Your task to perform on an android device: Add usb-c to usb-a to the cart on target.com, then select checkout. Image 0: 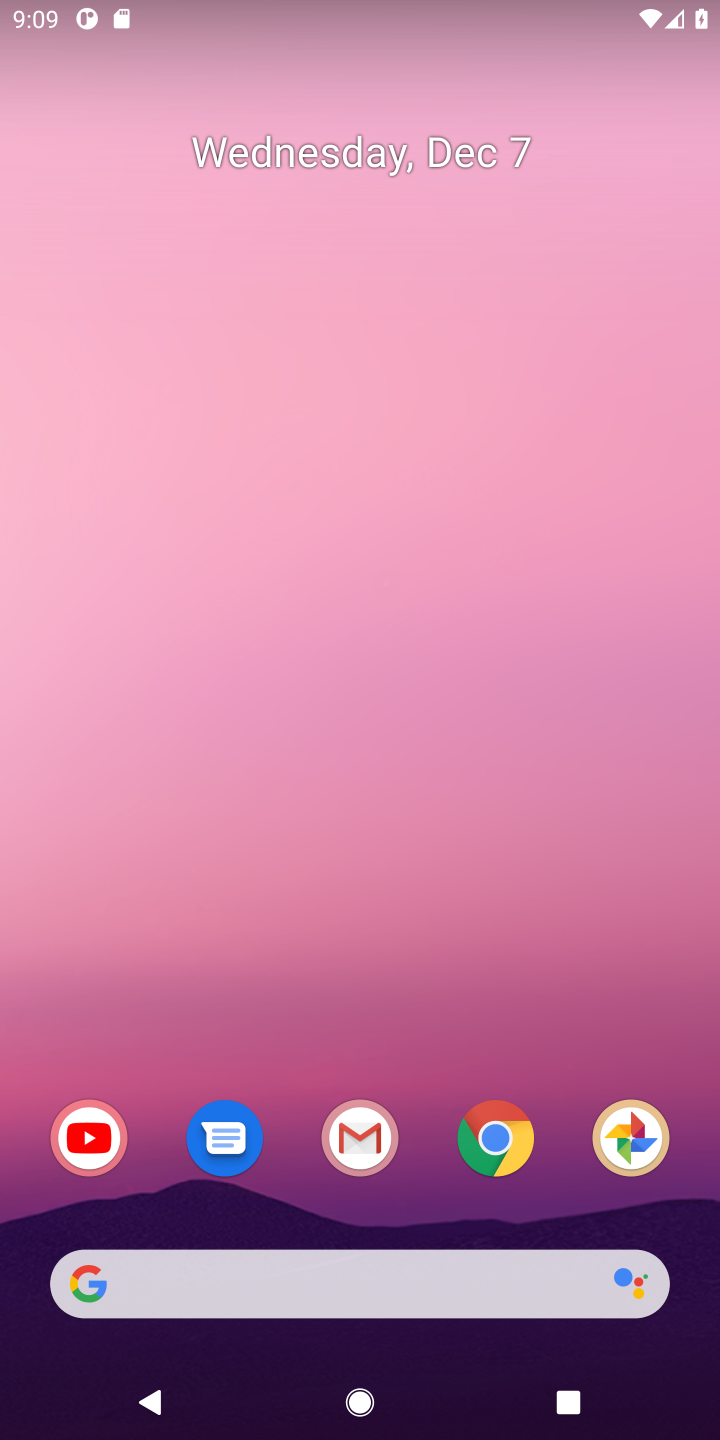
Step 0: press home button
Your task to perform on an android device: Add usb-c to usb-a to the cart on target.com, then select checkout. Image 1: 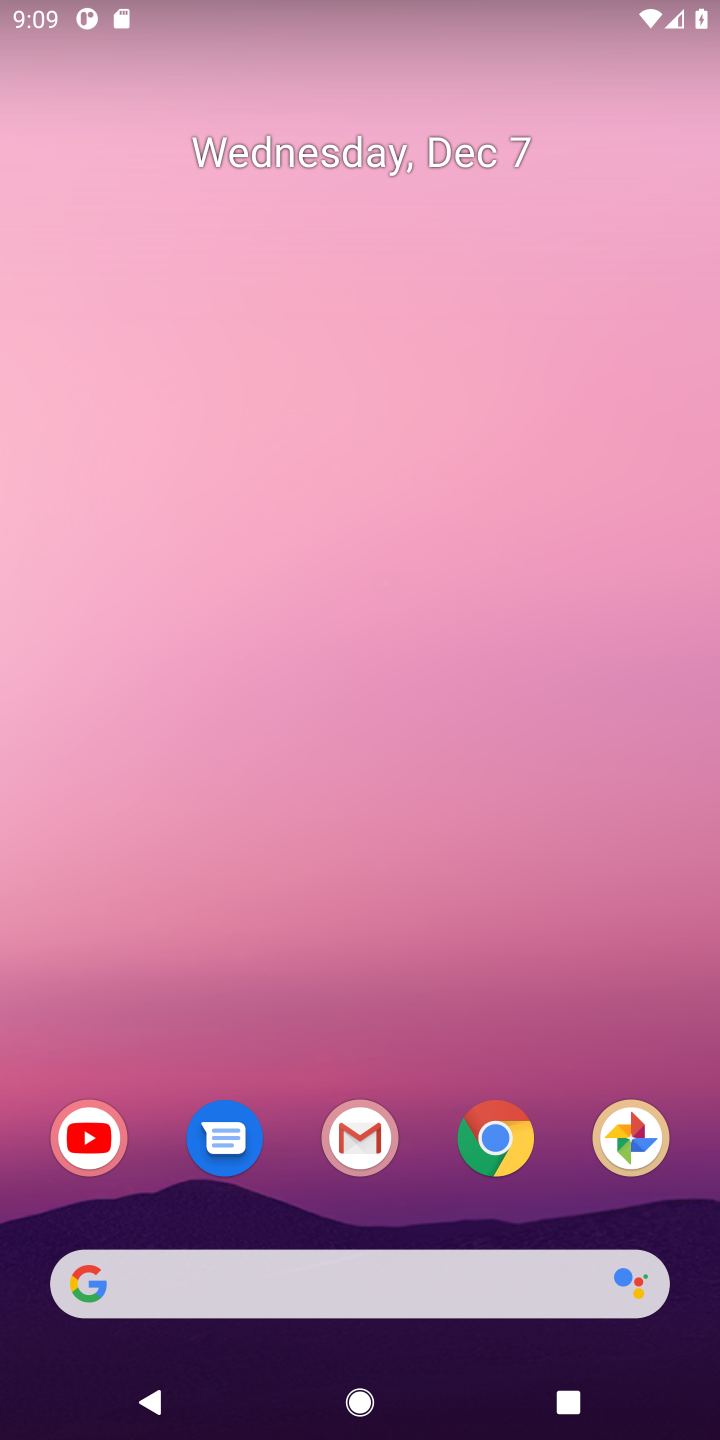
Step 1: click (128, 1288)
Your task to perform on an android device: Add usb-c to usb-a to the cart on target.com, then select checkout. Image 2: 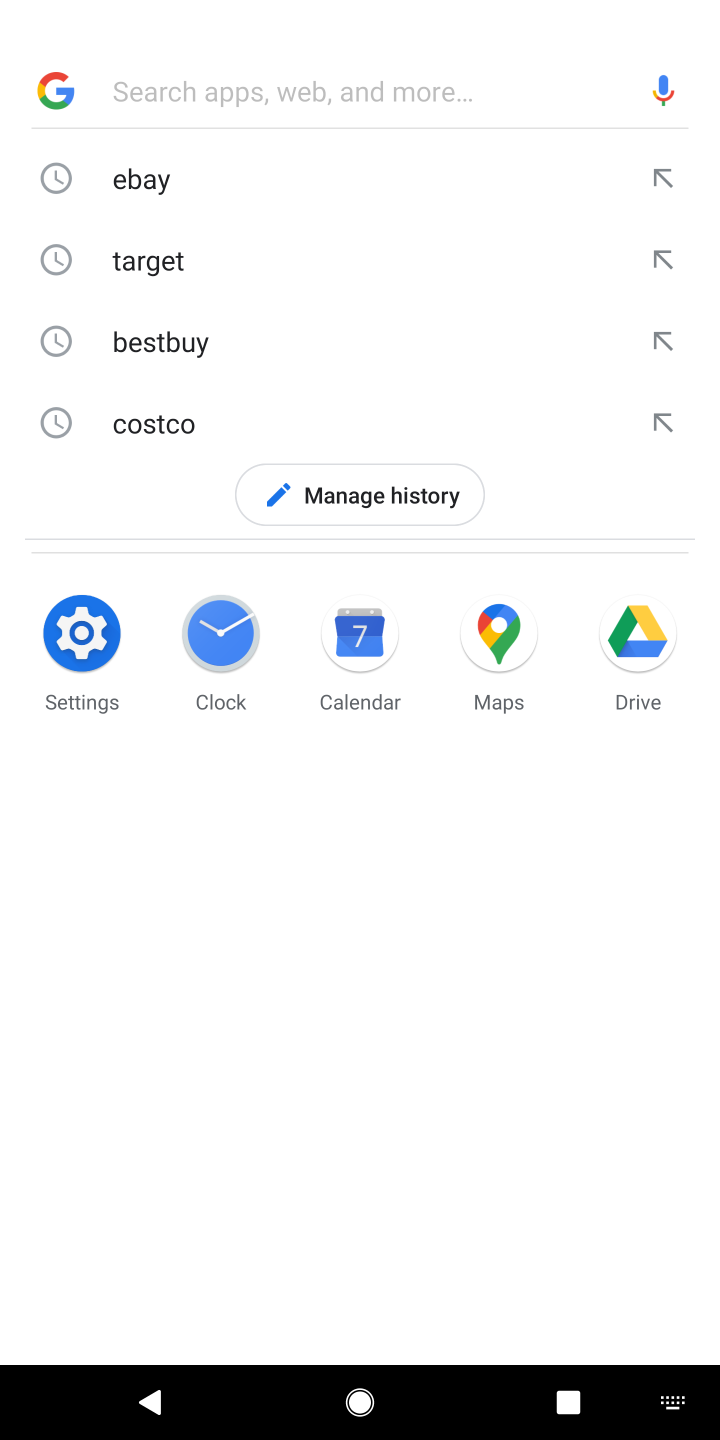
Step 2: type "target.com"
Your task to perform on an android device: Add usb-c to usb-a to the cart on target.com, then select checkout. Image 3: 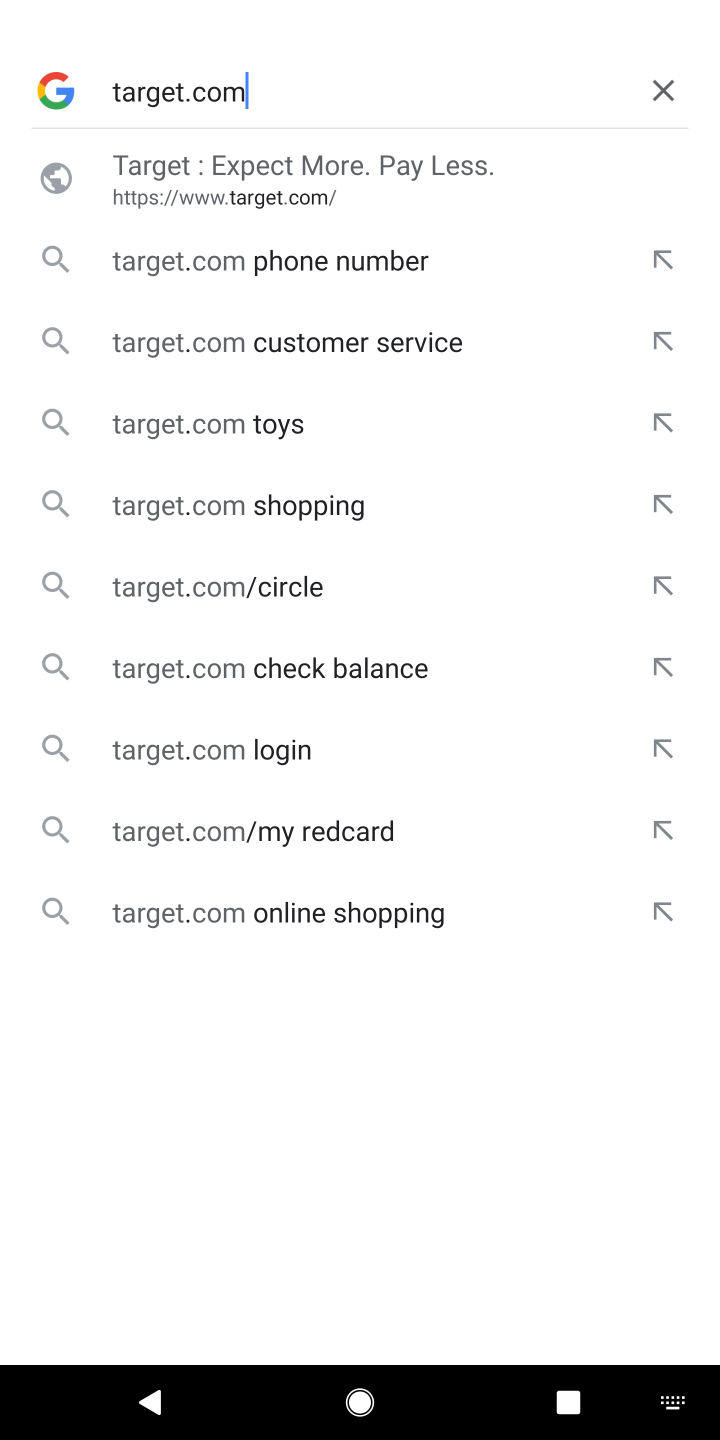
Step 3: press enter
Your task to perform on an android device: Add usb-c to usb-a to the cart on target.com, then select checkout. Image 4: 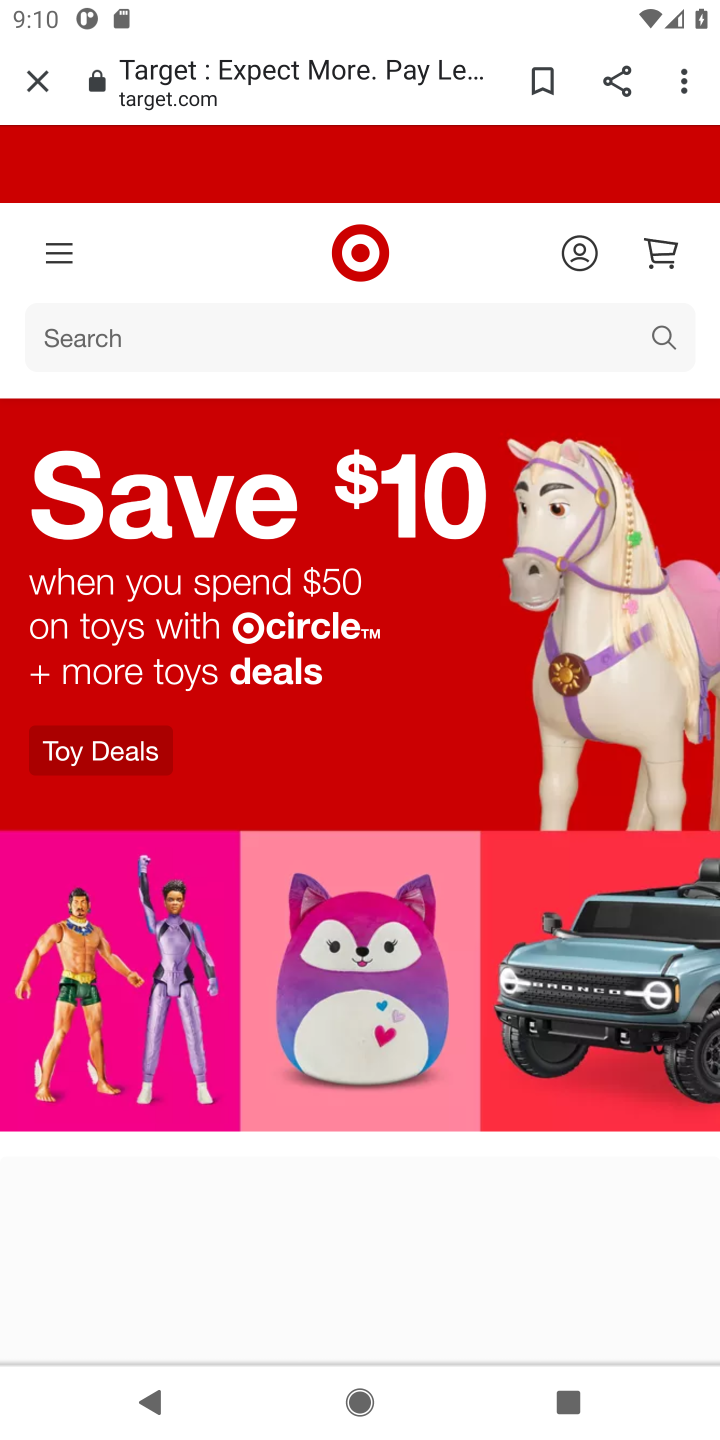
Step 4: click (111, 338)
Your task to perform on an android device: Add usb-c to usb-a to the cart on target.com, then select checkout. Image 5: 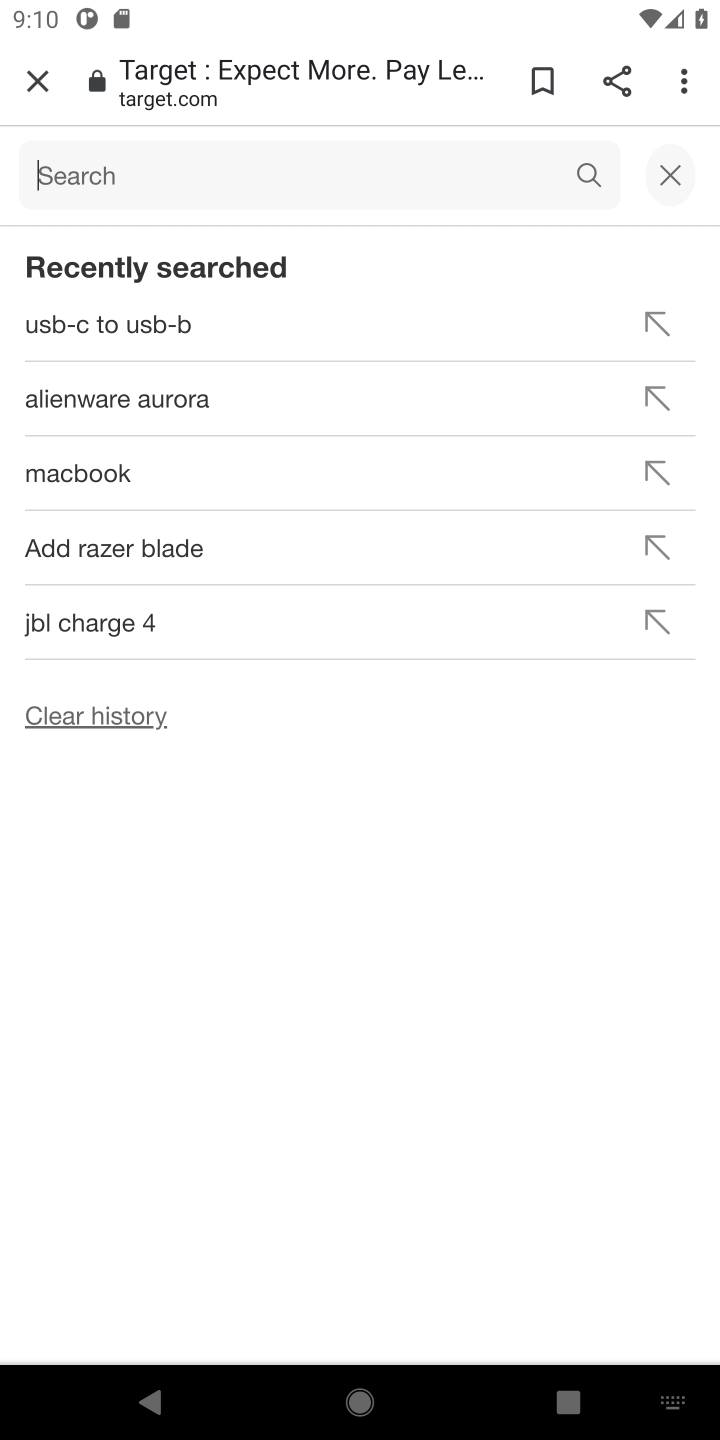
Step 5: type "usb-c to usb-a"
Your task to perform on an android device: Add usb-c to usb-a to the cart on target.com, then select checkout. Image 6: 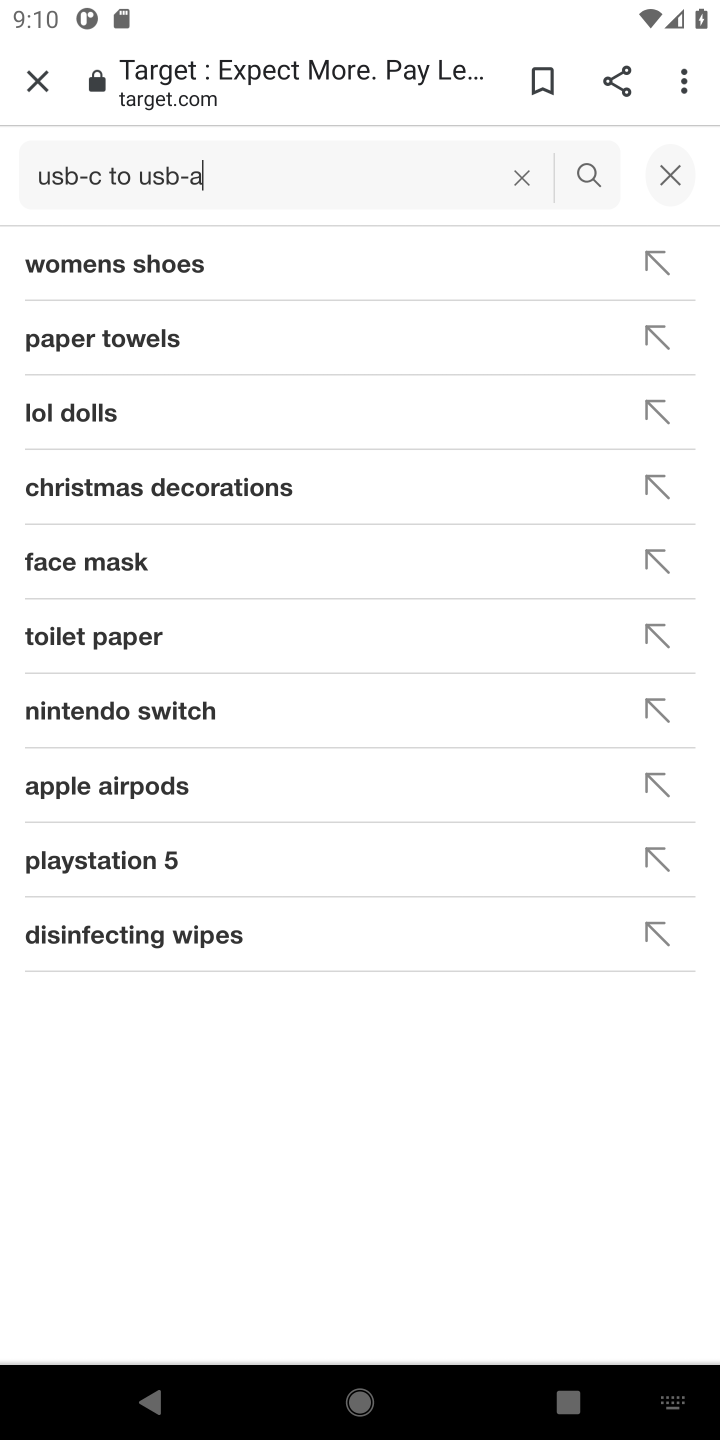
Step 6: press enter
Your task to perform on an android device: Add usb-c to usb-a to the cart on target.com, then select checkout. Image 7: 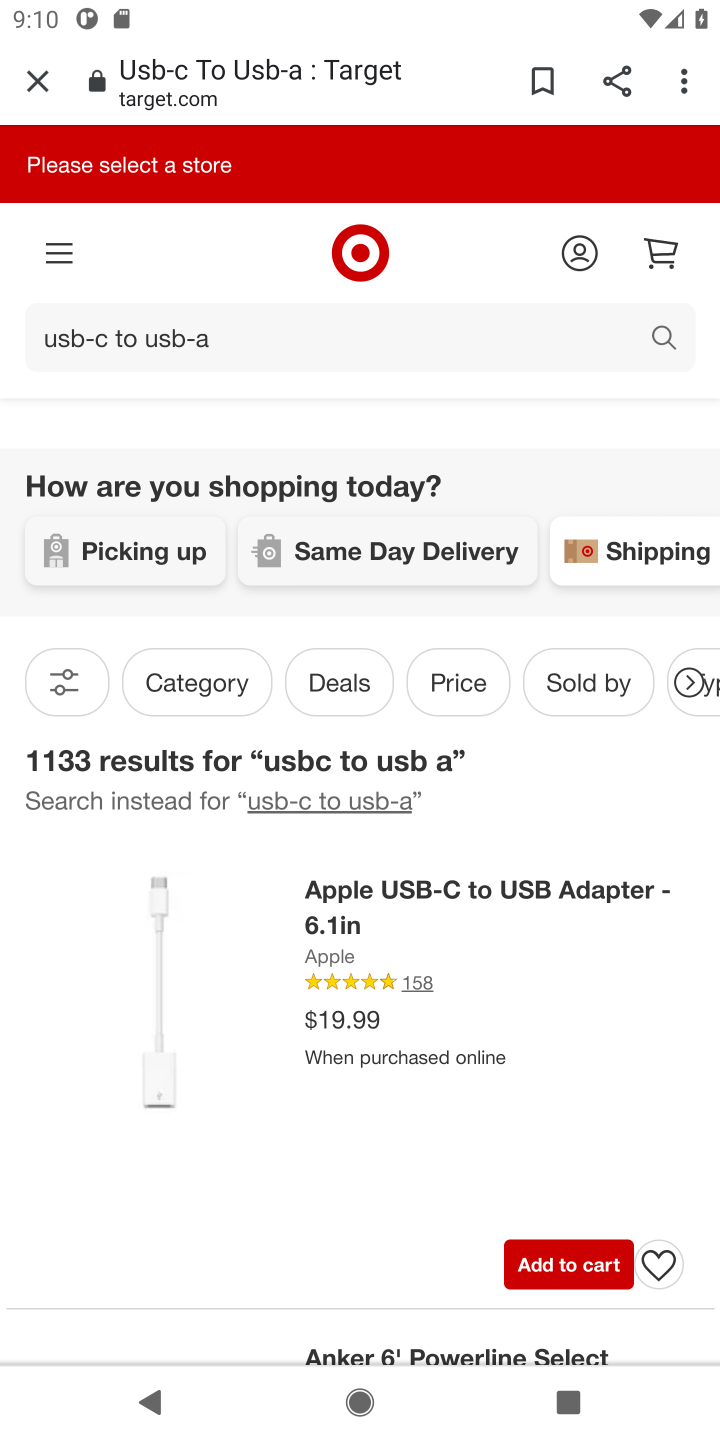
Step 7: drag from (509, 1148) to (486, 667)
Your task to perform on an android device: Add usb-c to usb-a to the cart on target.com, then select checkout. Image 8: 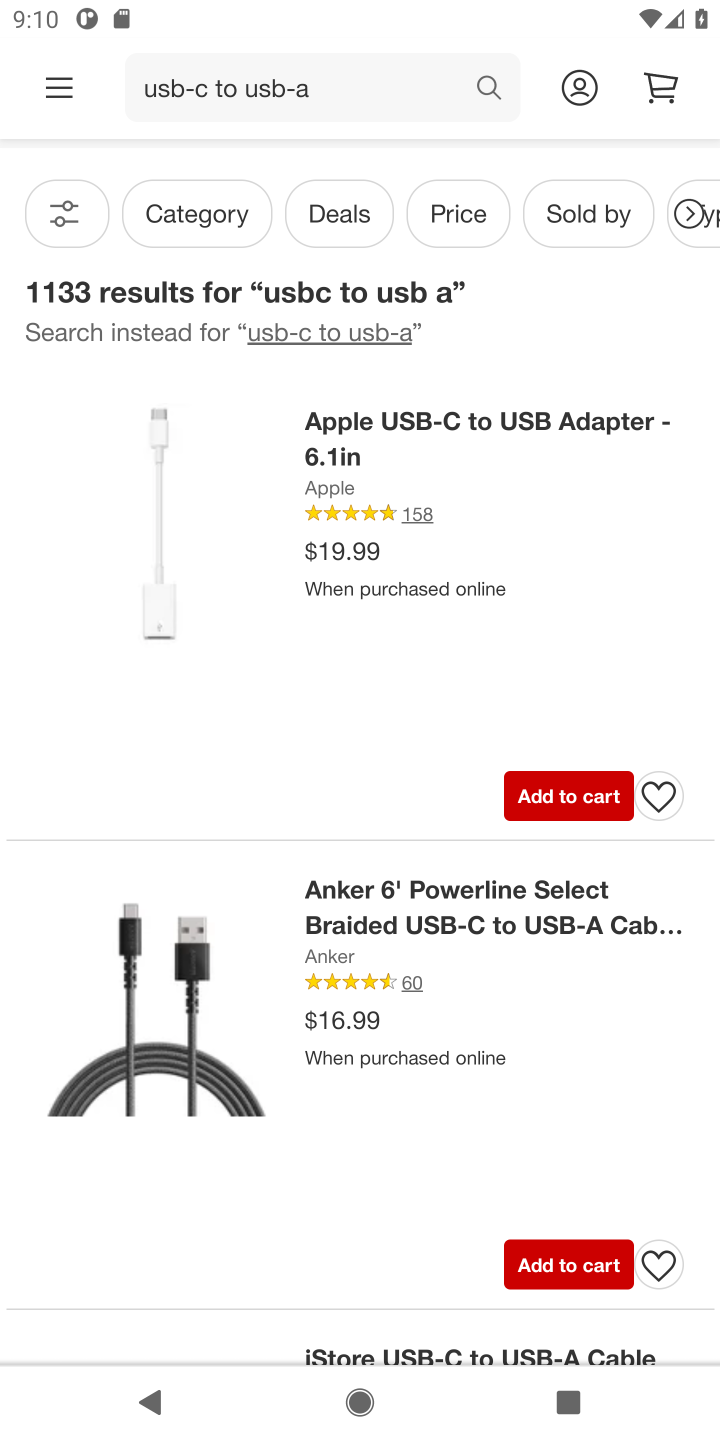
Step 8: click (541, 791)
Your task to perform on an android device: Add usb-c to usb-a to the cart on target.com, then select checkout. Image 9: 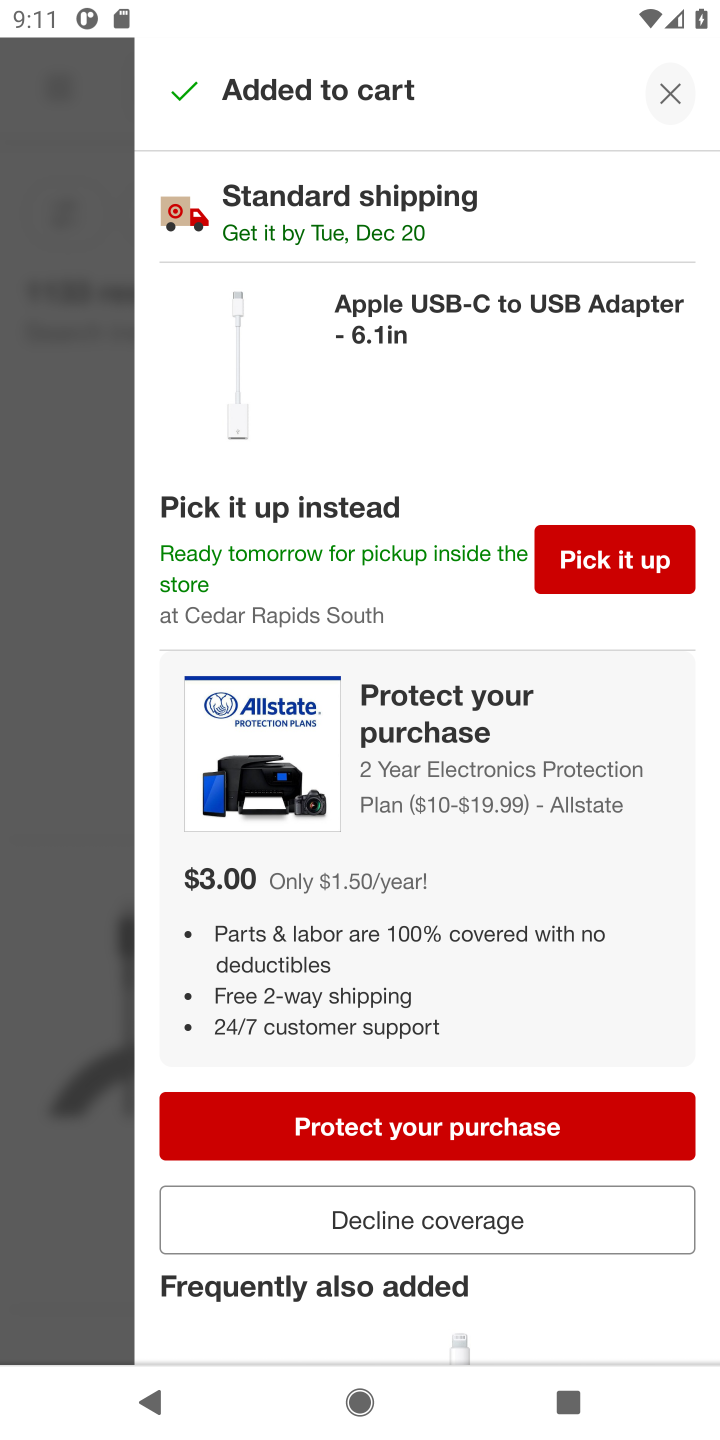
Step 9: click (466, 1228)
Your task to perform on an android device: Add usb-c to usb-a to the cart on target.com, then select checkout. Image 10: 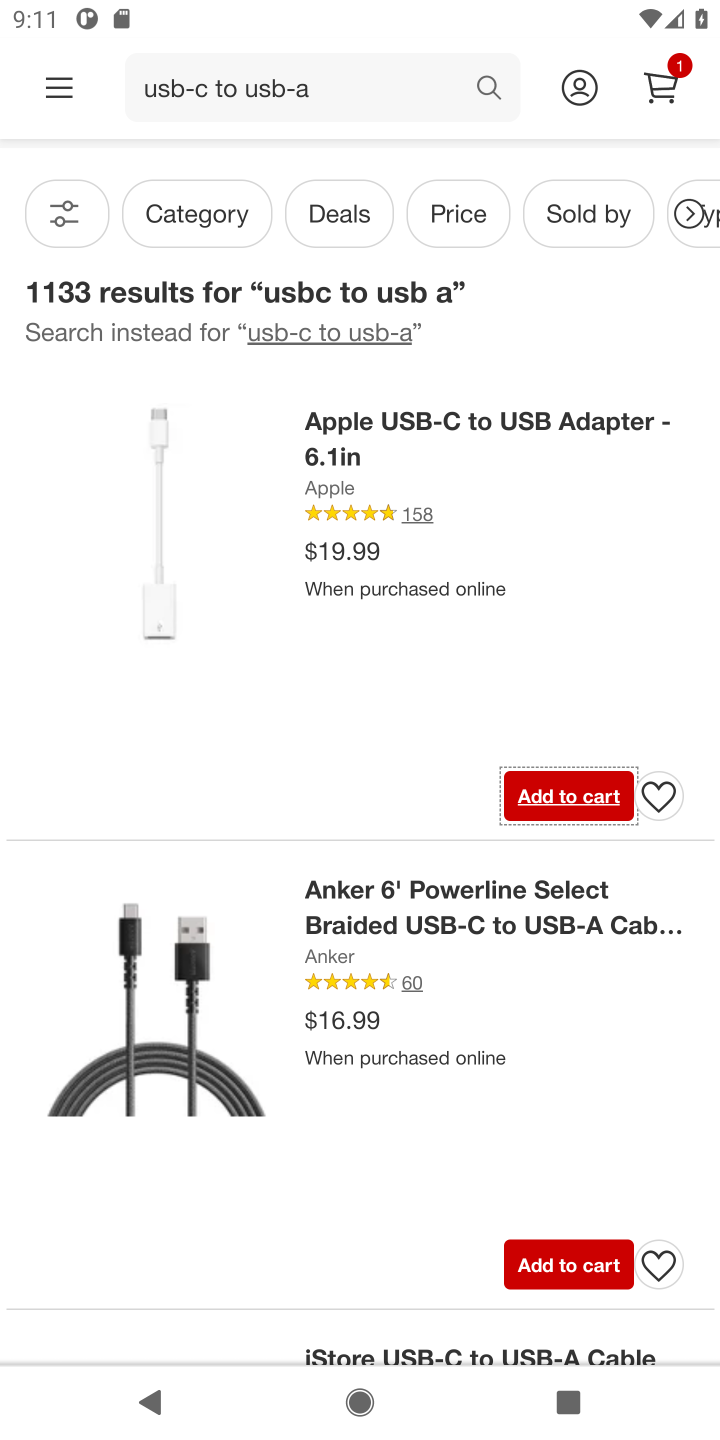
Step 10: click (668, 74)
Your task to perform on an android device: Add usb-c to usb-a to the cart on target.com, then select checkout. Image 11: 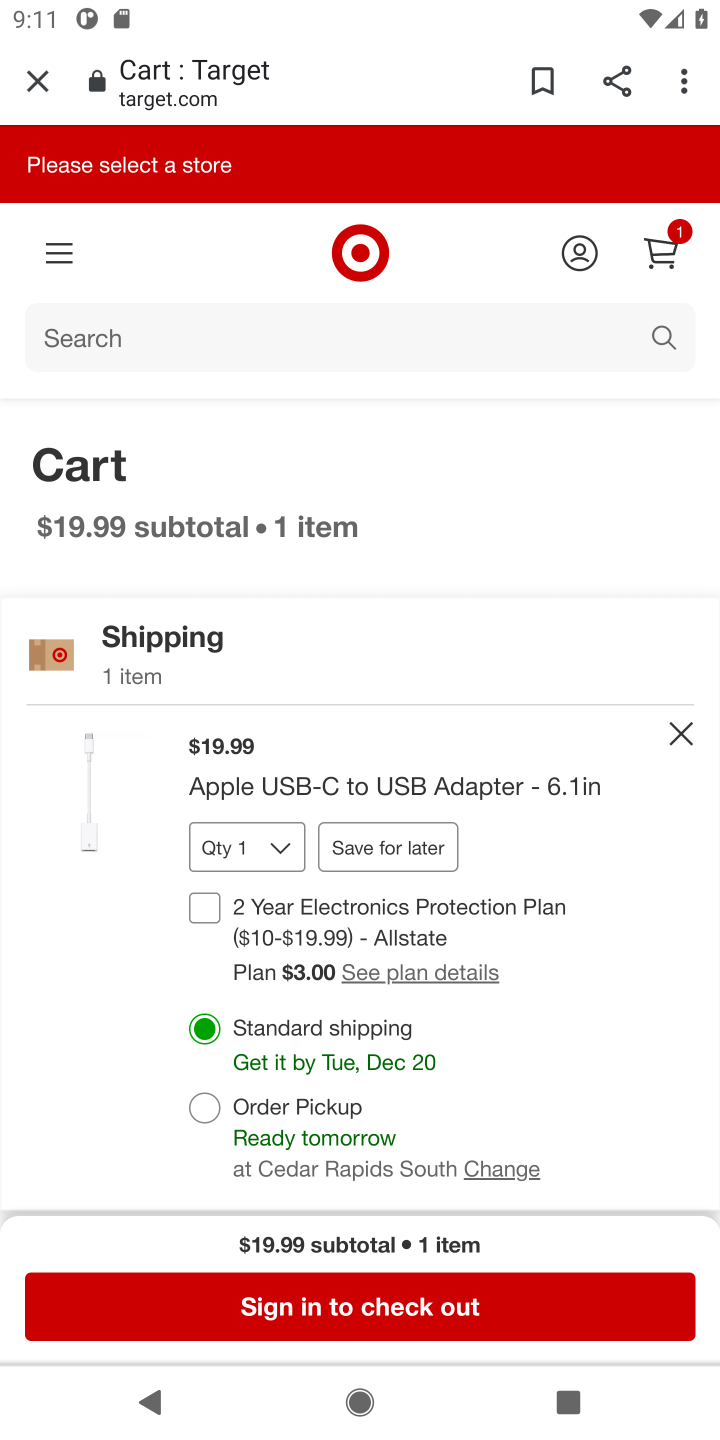
Step 11: click (287, 1308)
Your task to perform on an android device: Add usb-c to usb-a to the cart on target.com, then select checkout. Image 12: 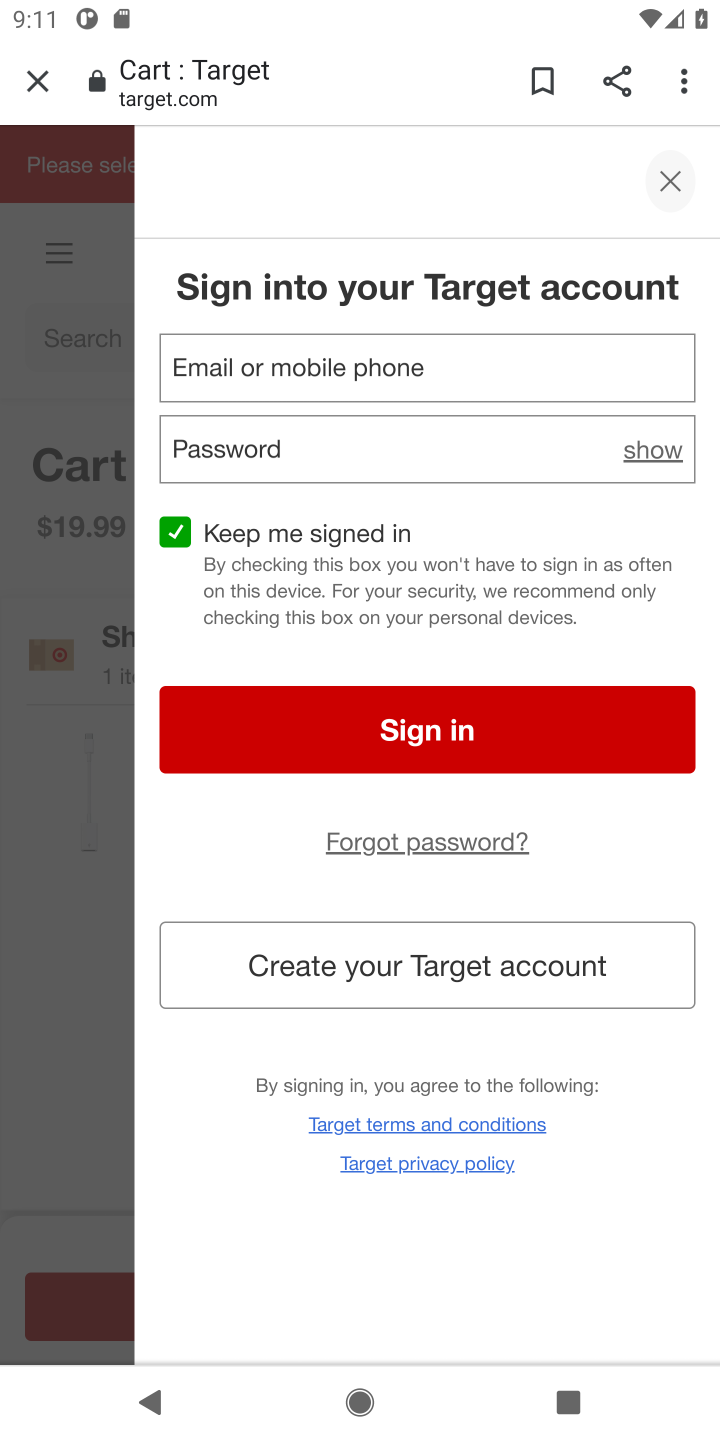
Step 12: task complete